Your task to perform on an android device: check the backup settings in the google photos Image 0: 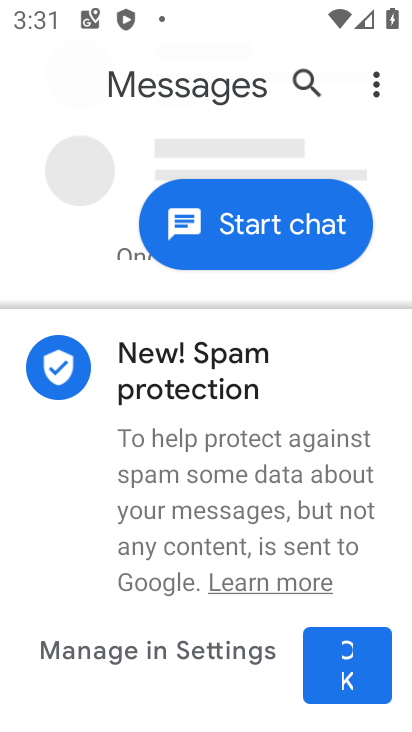
Step 0: press home button
Your task to perform on an android device: check the backup settings in the google photos Image 1: 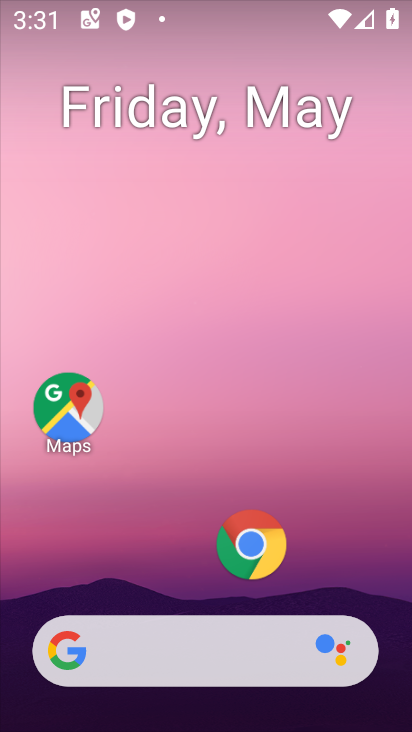
Step 1: drag from (195, 590) to (210, 115)
Your task to perform on an android device: check the backup settings in the google photos Image 2: 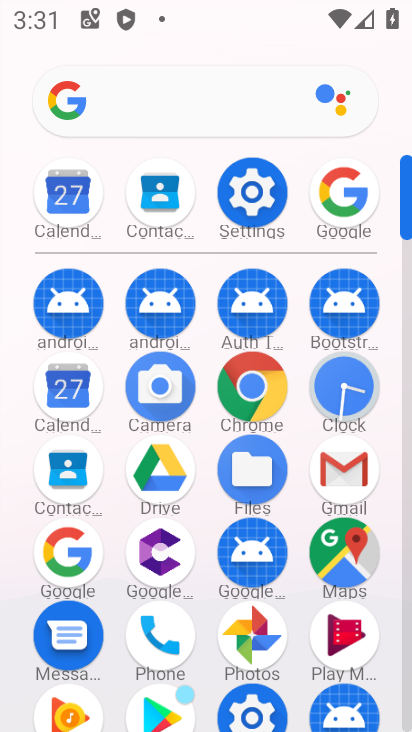
Step 2: click (233, 633)
Your task to perform on an android device: check the backup settings in the google photos Image 3: 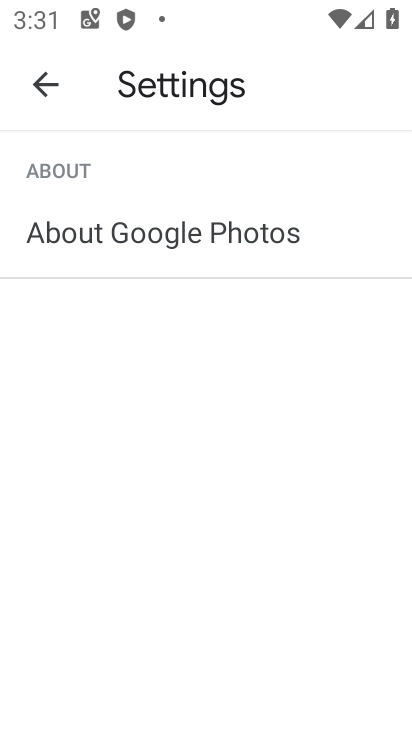
Step 3: click (54, 89)
Your task to perform on an android device: check the backup settings in the google photos Image 4: 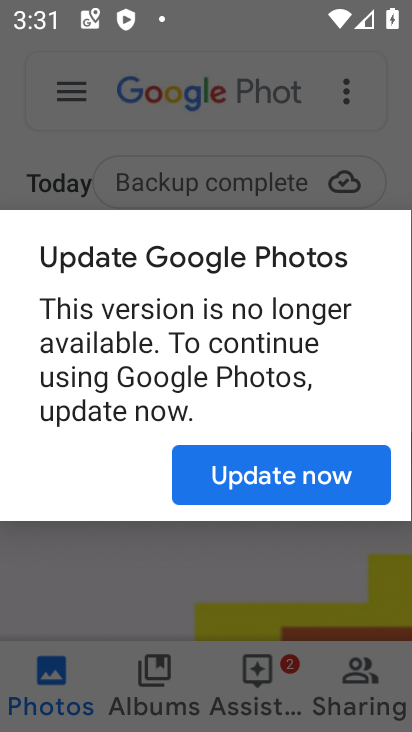
Step 4: click (254, 470)
Your task to perform on an android device: check the backup settings in the google photos Image 5: 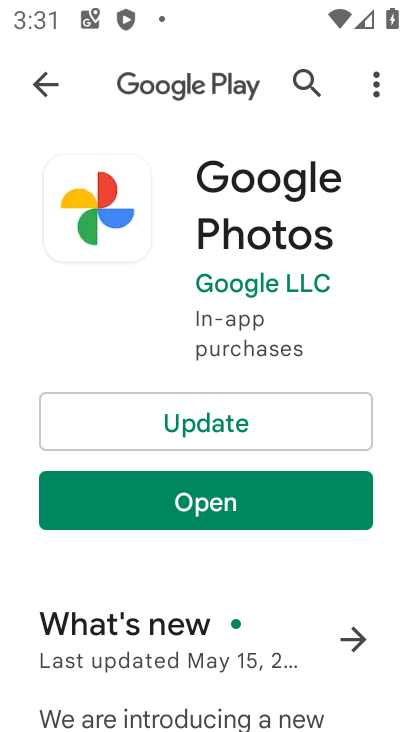
Step 5: click (238, 520)
Your task to perform on an android device: check the backup settings in the google photos Image 6: 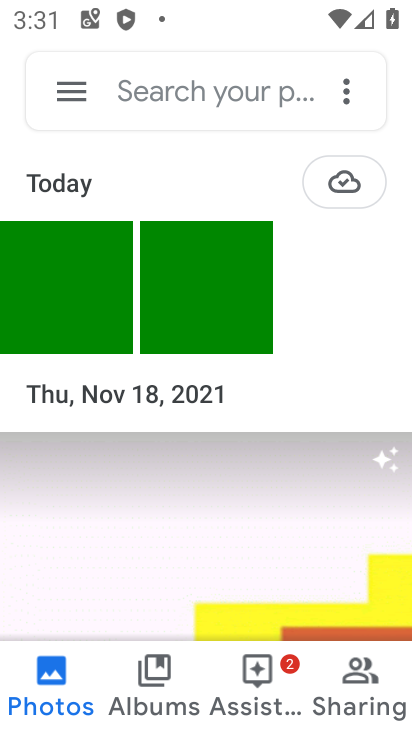
Step 6: click (69, 92)
Your task to perform on an android device: check the backup settings in the google photos Image 7: 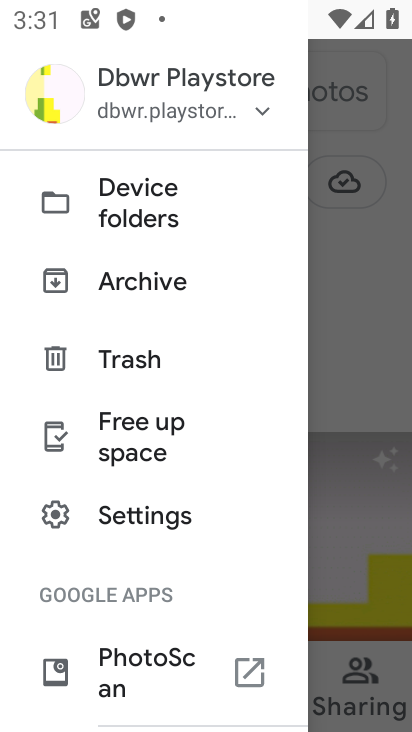
Step 7: drag from (132, 584) to (145, 283)
Your task to perform on an android device: check the backup settings in the google photos Image 8: 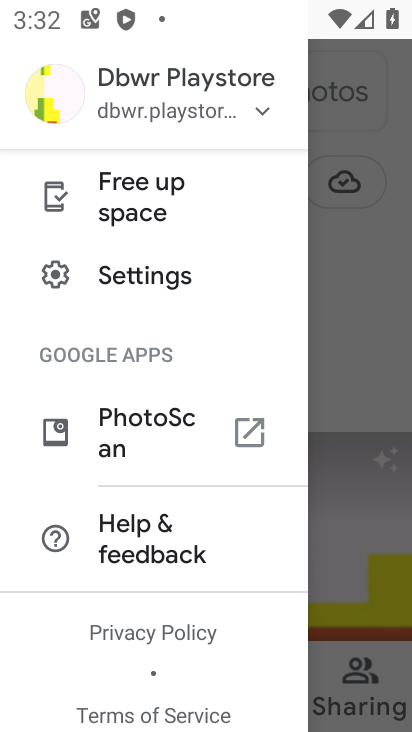
Step 8: drag from (156, 506) to (156, 452)
Your task to perform on an android device: check the backup settings in the google photos Image 9: 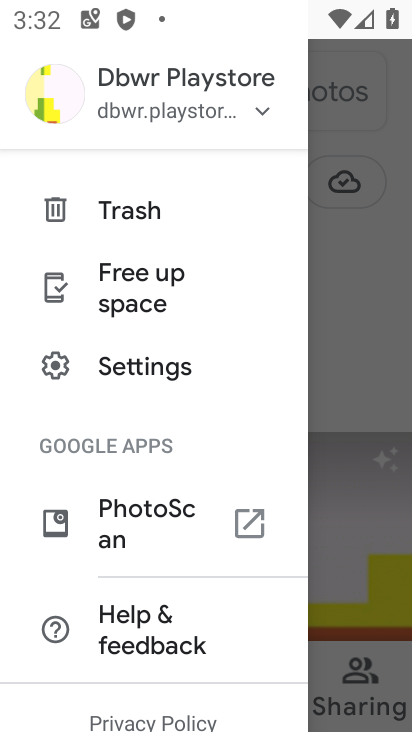
Step 9: click (147, 374)
Your task to perform on an android device: check the backup settings in the google photos Image 10: 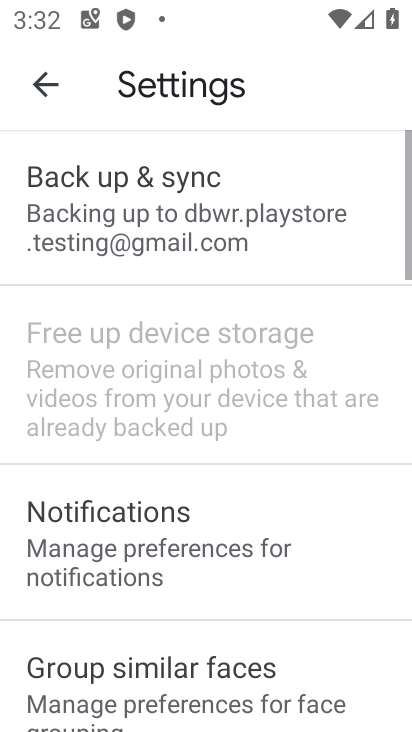
Step 10: click (163, 226)
Your task to perform on an android device: check the backup settings in the google photos Image 11: 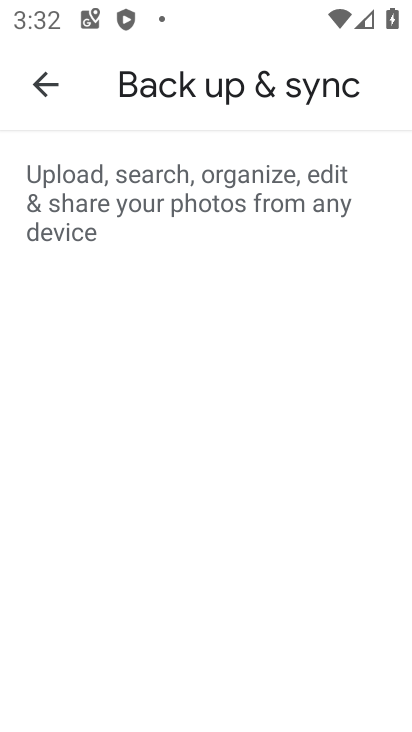
Step 11: task complete